Your task to perform on an android device: toggle data saver in the chrome app Image 0: 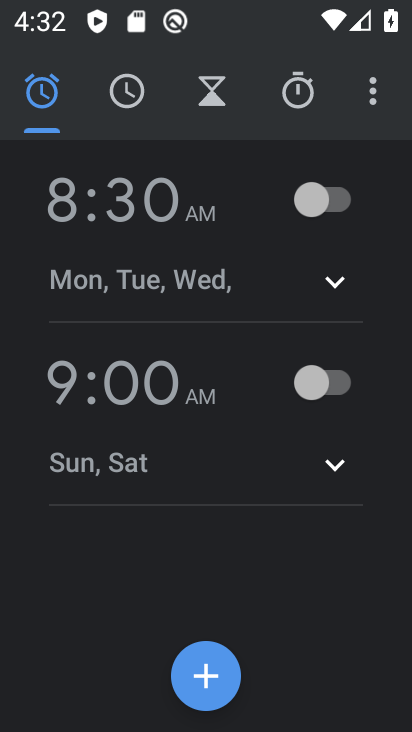
Step 0: press home button
Your task to perform on an android device: toggle data saver in the chrome app Image 1: 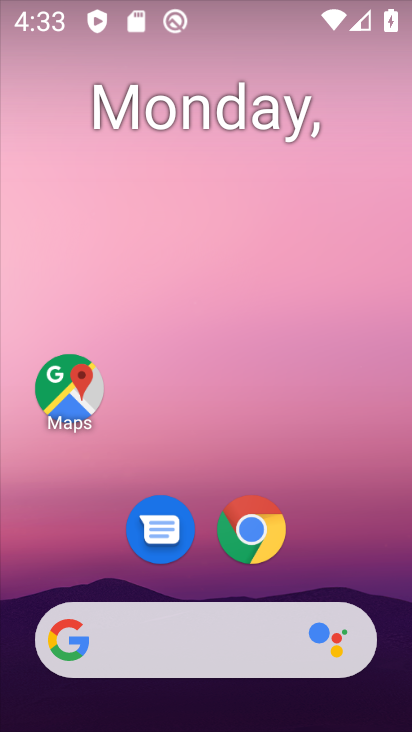
Step 1: click (265, 535)
Your task to perform on an android device: toggle data saver in the chrome app Image 2: 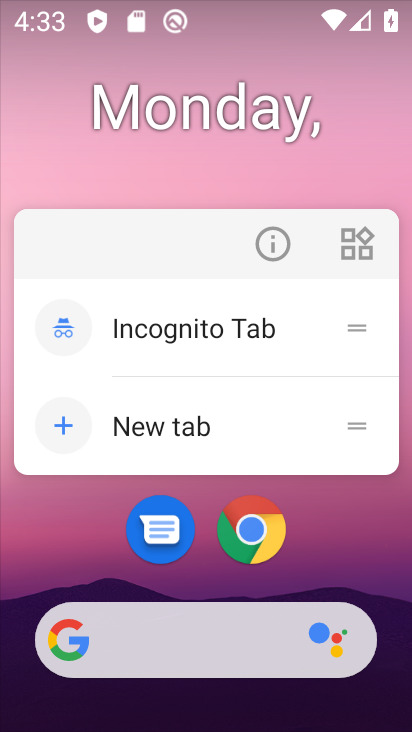
Step 2: click (255, 517)
Your task to perform on an android device: toggle data saver in the chrome app Image 3: 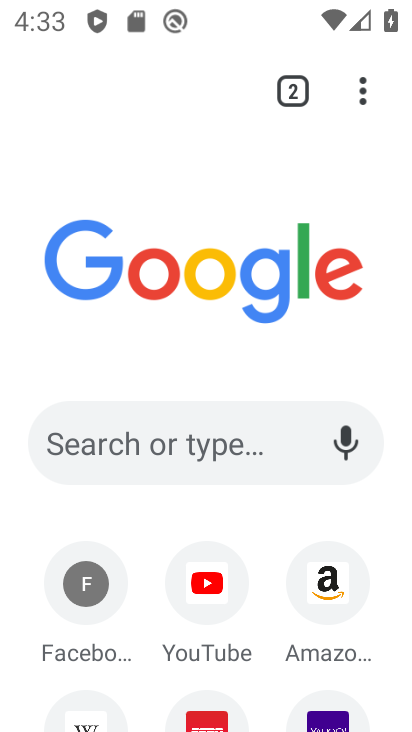
Step 3: click (360, 103)
Your task to perform on an android device: toggle data saver in the chrome app Image 4: 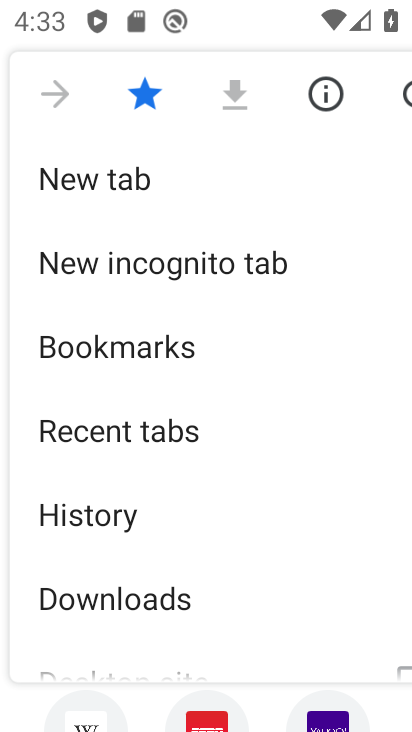
Step 4: drag from (125, 517) to (215, 100)
Your task to perform on an android device: toggle data saver in the chrome app Image 5: 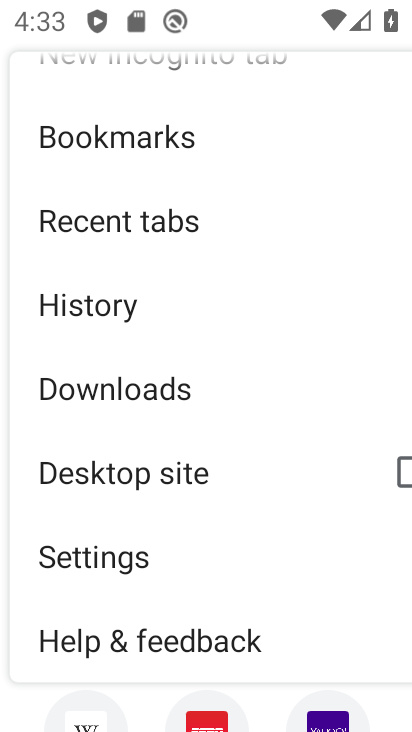
Step 5: click (113, 564)
Your task to perform on an android device: toggle data saver in the chrome app Image 6: 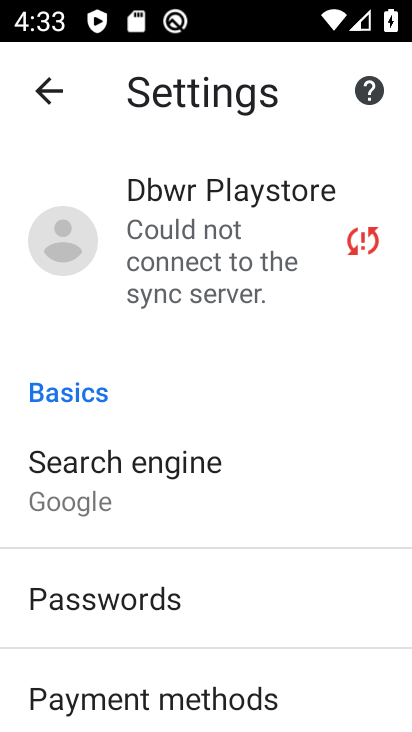
Step 6: drag from (144, 578) to (209, 272)
Your task to perform on an android device: toggle data saver in the chrome app Image 7: 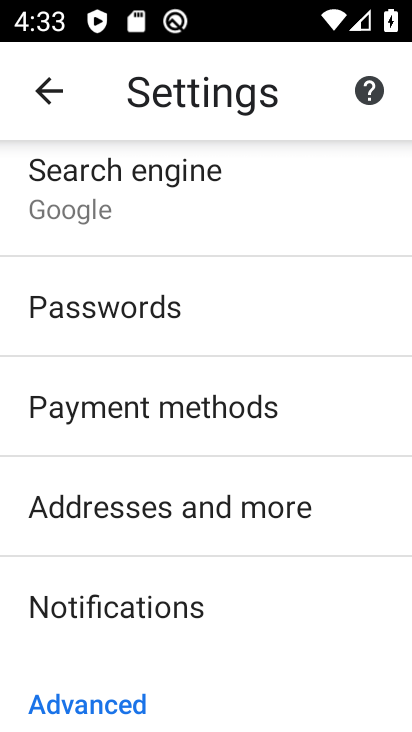
Step 7: drag from (185, 600) to (248, 239)
Your task to perform on an android device: toggle data saver in the chrome app Image 8: 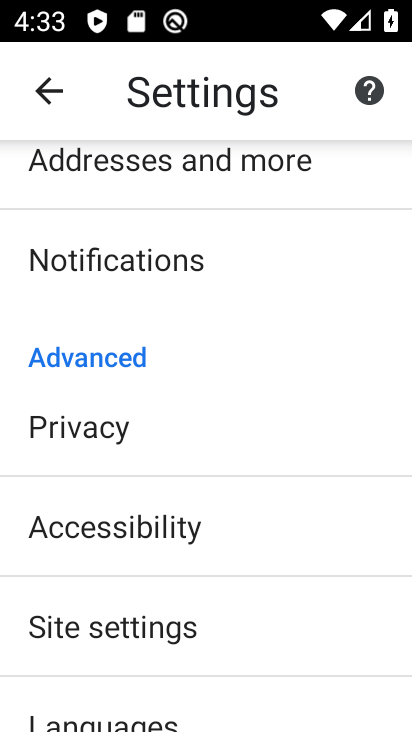
Step 8: drag from (154, 576) to (208, 324)
Your task to perform on an android device: toggle data saver in the chrome app Image 9: 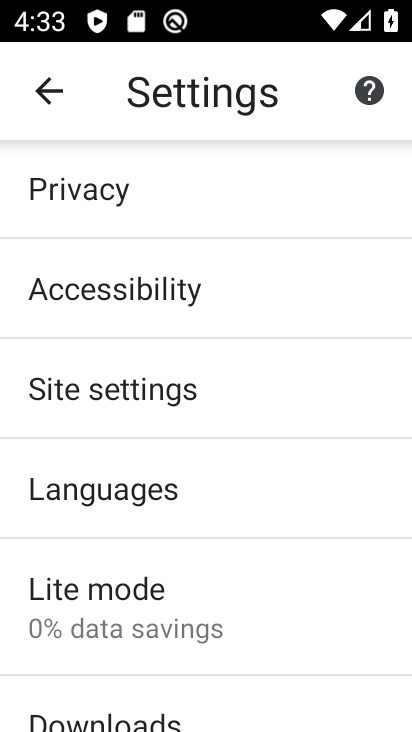
Step 9: click (101, 590)
Your task to perform on an android device: toggle data saver in the chrome app Image 10: 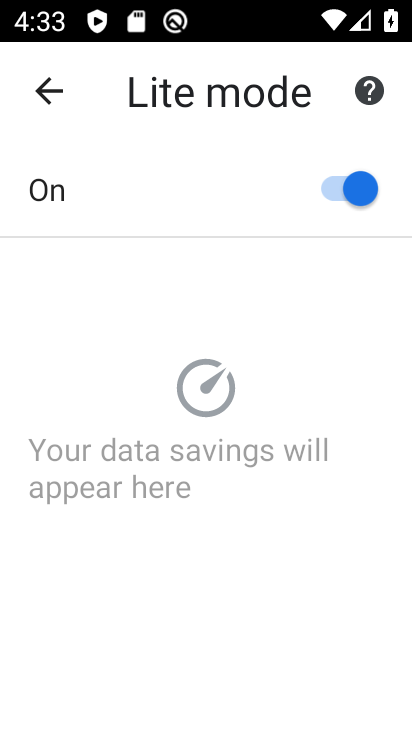
Step 10: click (329, 183)
Your task to perform on an android device: toggle data saver in the chrome app Image 11: 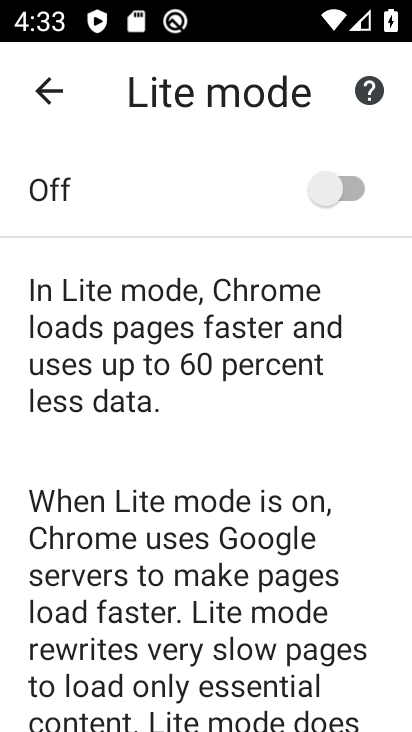
Step 11: task complete